Your task to perform on an android device: toggle airplane mode Image 0: 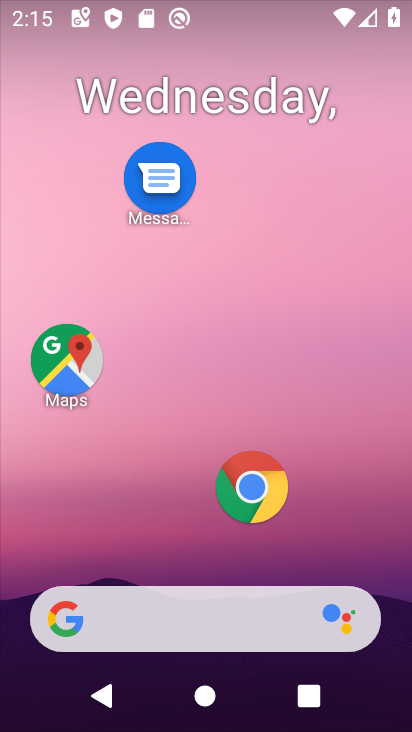
Step 0: drag from (200, 522) to (200, 132)
Your task to perform on an android device: toggle airplane mode Image 1: 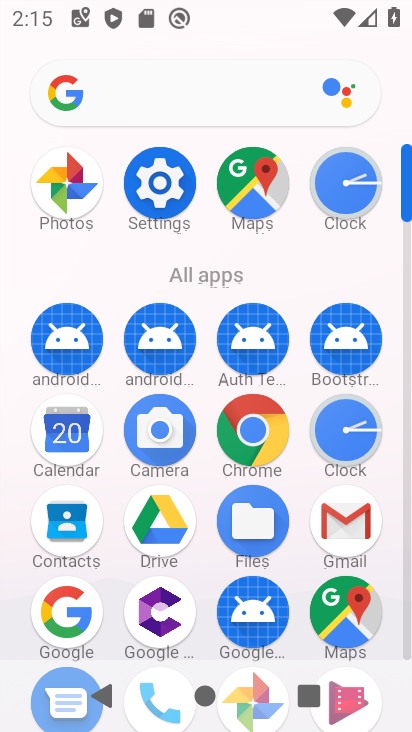
Step 1: click (160, 190)
Your task to perform on an android device: toggle airplane mode Image 2: 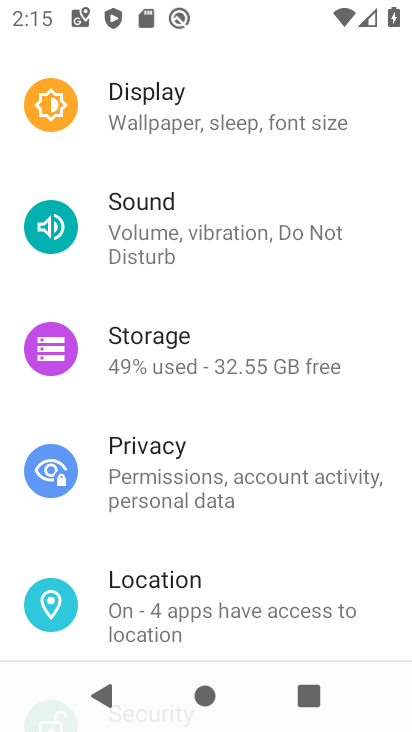
Step 2: drag from (189, 206) to (193, 583)
Your task to perform on an android device: toggle airplane mode Image 3: 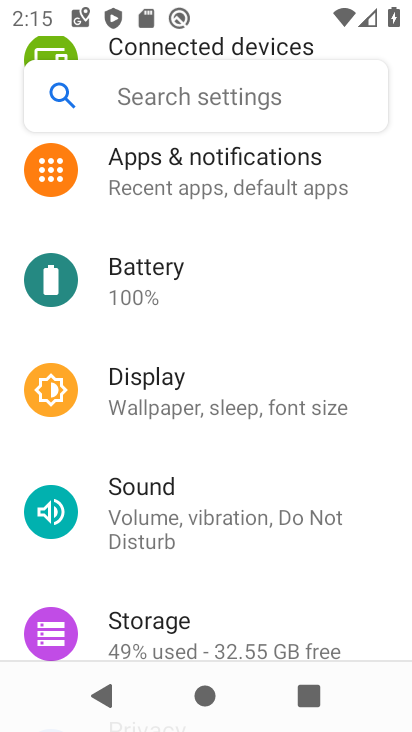
Step 3: drag from (230, 203) to (236, 507)
Your task to perform on an android device: toggle airplane mode Image 4: 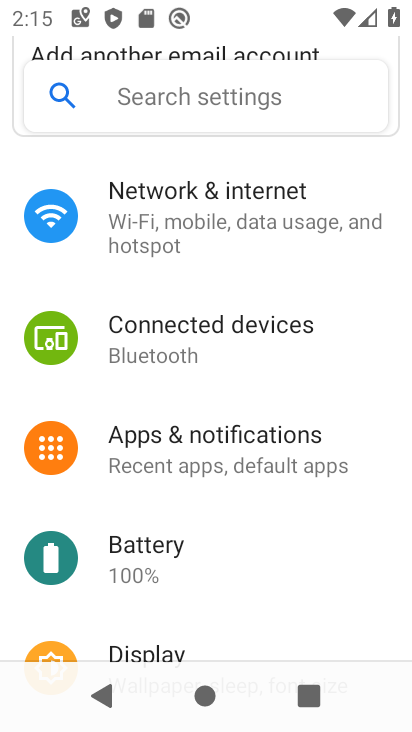
Step 4: click (186, 219)
Your task to perform on an android device: toggle airplane mode Image 5: 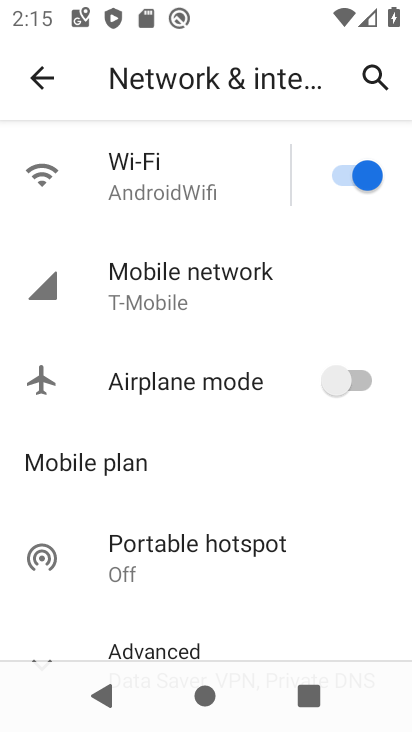
Step 5: click (365, 370)
Your task to perform on an android device: toggle airplane mode Image 6: 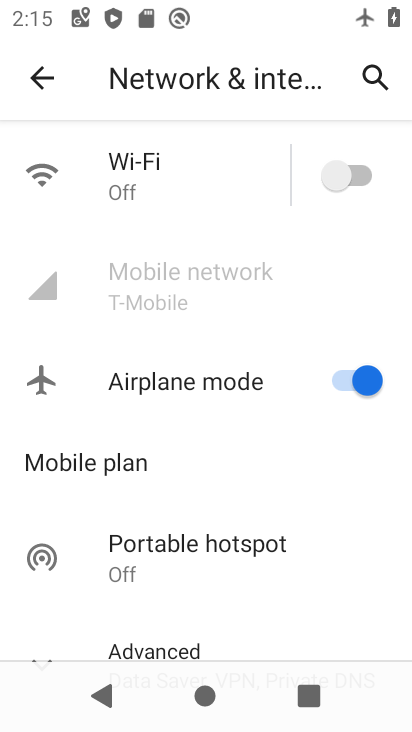
Step 6: task complete